Your task to perform on an android device: check storage Image 0: 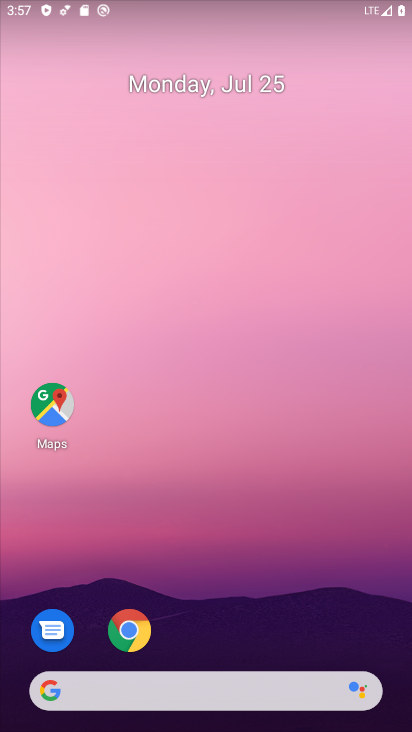
Step 0: drag from (211, 629) to (223, 82)
Your task to perform on an android device: check storage Image 1: 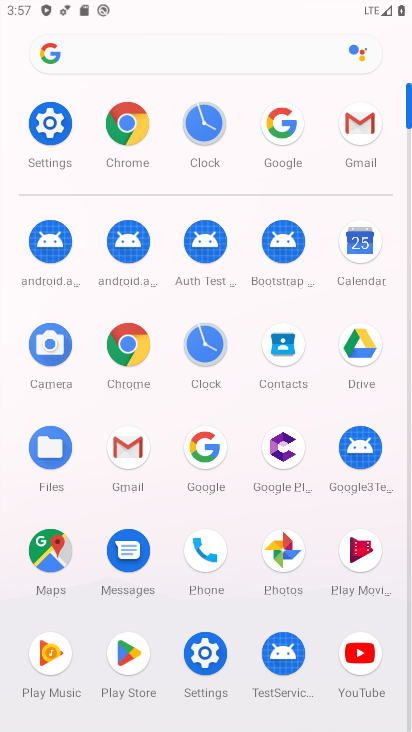
Step 1: click (54, 117)
Your task to perform on an android device: check storage Image 2: 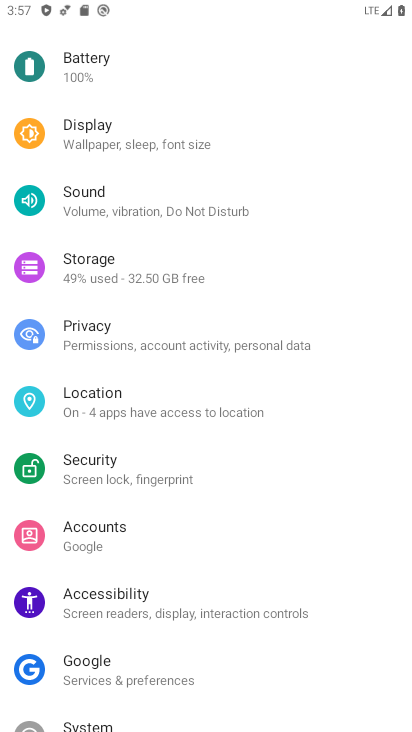
Step 2: click (158, 275)
Your task to perform on an android device: check storage Image 3: 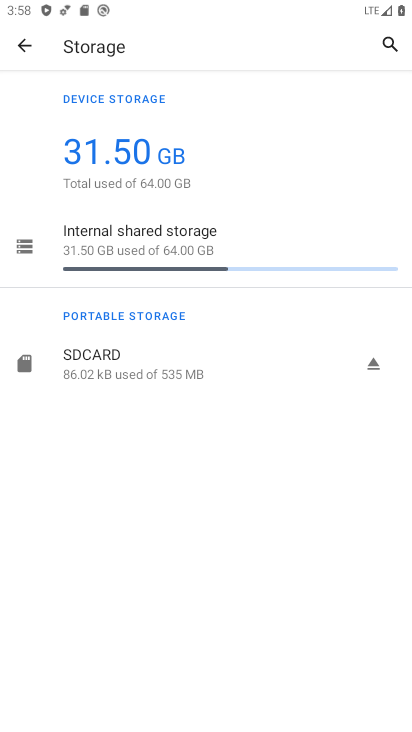
Step 3: task complete